Your task to perform on an android device: toggle show notifications on the lock screen Image 0: 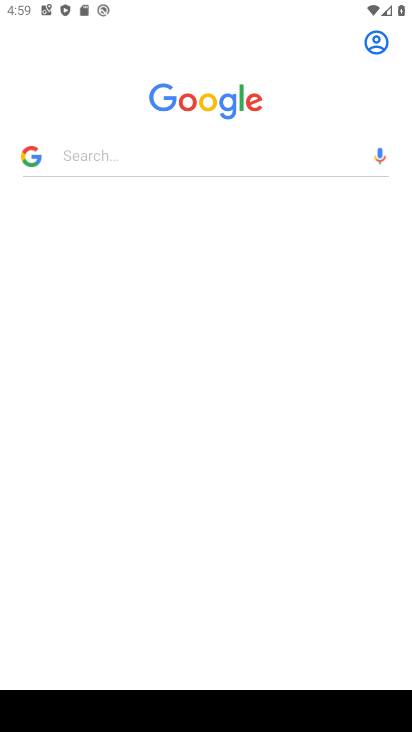
Step 0: drag from (282, 617) to (341, 328)
Your task to perform on an android device: toggle show notifications on the lock screen Image 1: 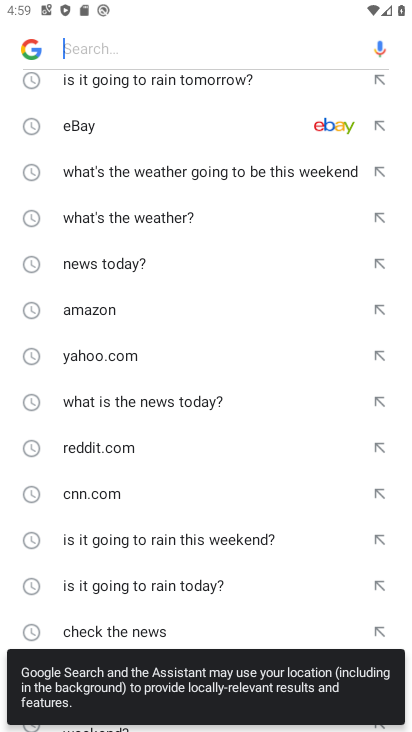
Step 1: press home button
Your task to perform on an android device: toggle show notifications on the lock screen Image 2: 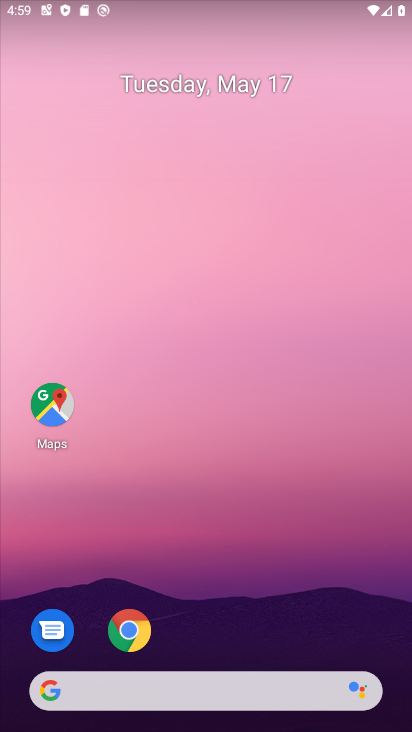
Step 2: drag from (274, 534) to (276, 105)
Your task to perform on an android device: toggle show notifications on the lock screen Image 3: 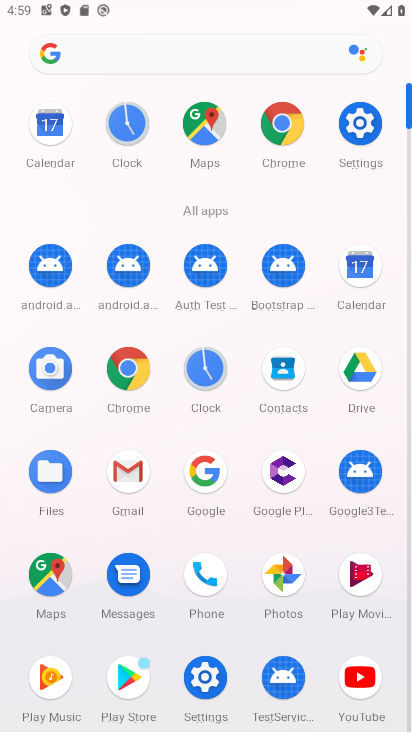
Step 3: click (367, 124)
Your task to perform on an android device: toggle show notifications on the lock screen Image 4: 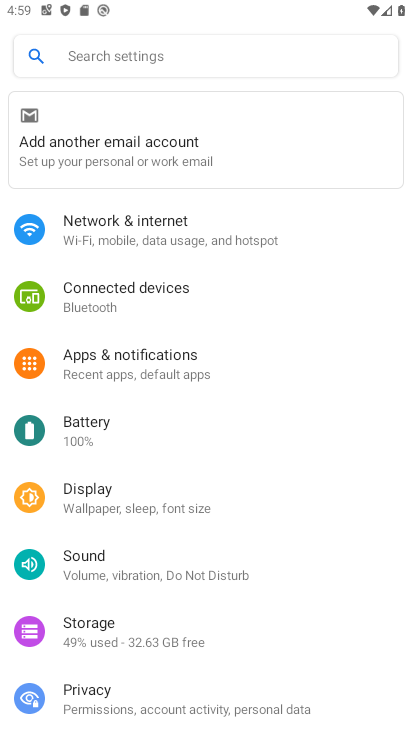
Step 4: drag from (229, 654) to (267, 376)
Your task to perform on an android device: toggle show notifications on the lock screen Image 5: 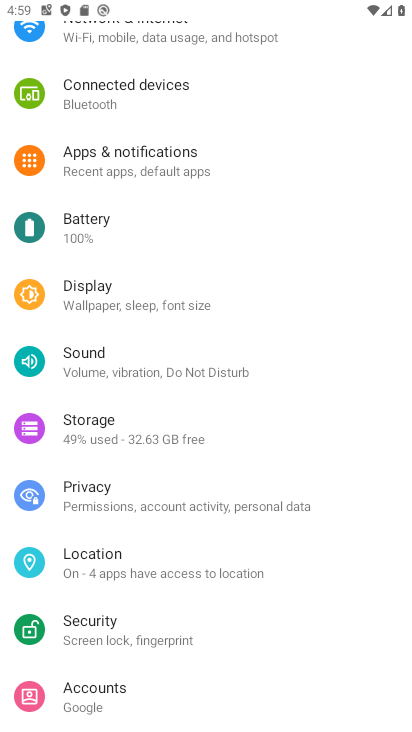
Step 5: drag from (165, 653) to (229, 702)
Your task to perform on an android device: toggle show notifications on the lock screen Image 6: 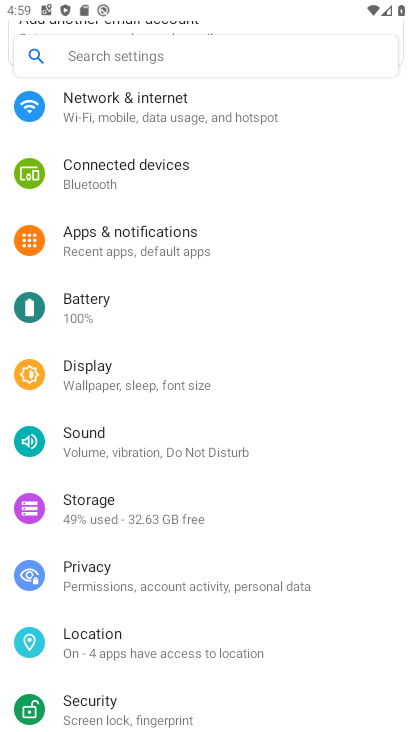
Step 6: click (149, 248)
Your task to perform on an android device: toggle show notifications on the lock screen Image 7: 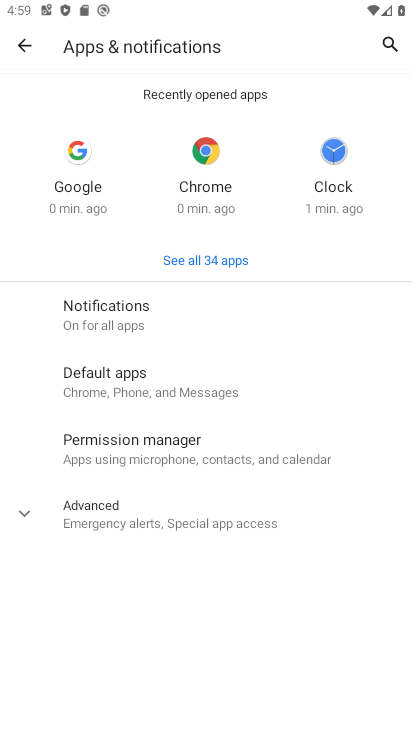
Step 7: click (124, 310)
Your task to perform on an android device: toggle show notifications on the lock screen Image 8: 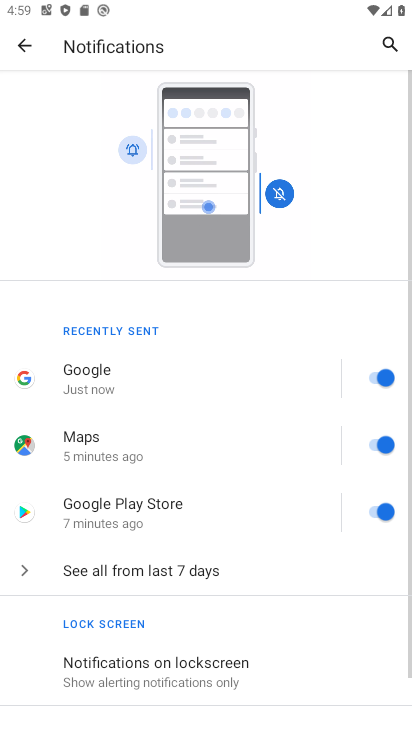
Step 8: drag from (194, 677) to (290, 276)
Your task to perform on an android device: toggle show notifications on the lock screen Image 9: 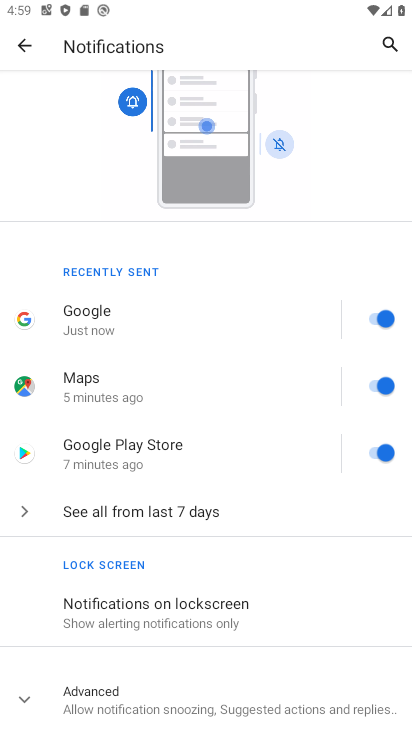
Step 9: click (205, 610)
Your task to perform on an android device: toggle show notifications on the lock screen Image 10: 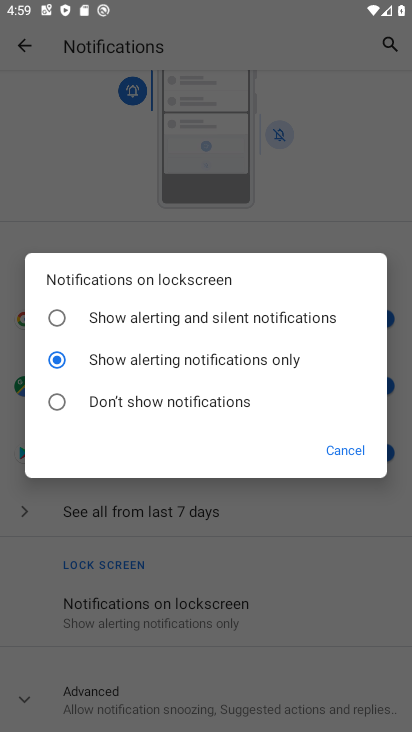
Step 10: click (197, 411)
Your task to perform on an android device: toggle show notifications on the lock screen Image 11: 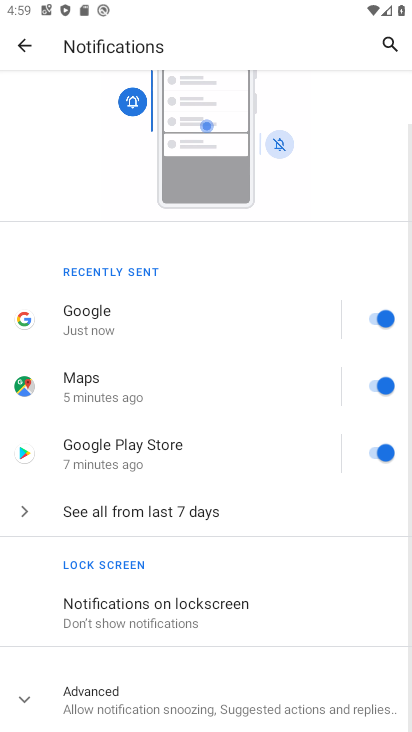
Step 11: task complete